Your task to perform on an android device: install app "Facebook" Image 0: 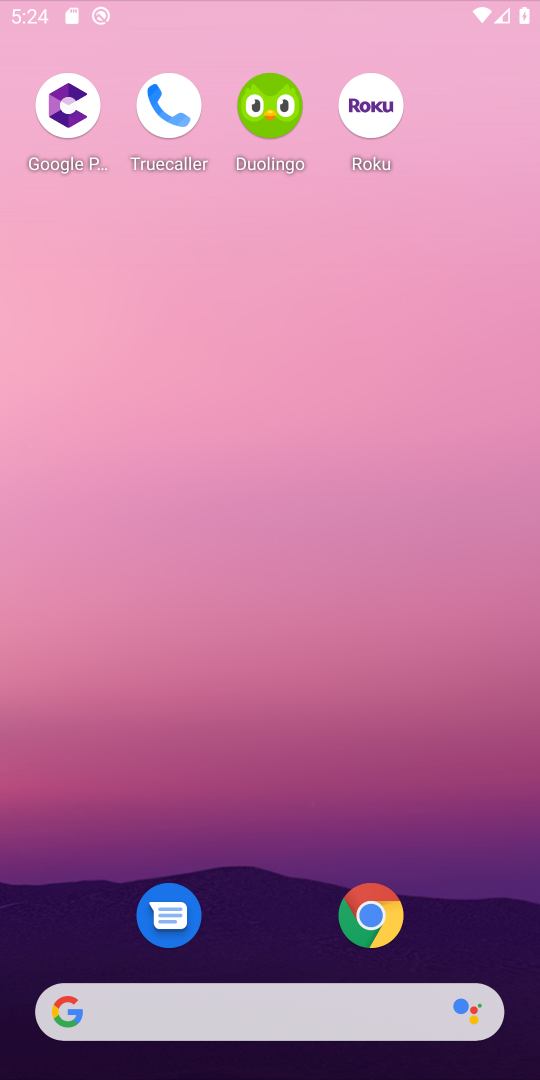
Step 0: drag from (268, 949) to (347, 66)
Your task to perform on an android device: install app "Facebook" Image 1: 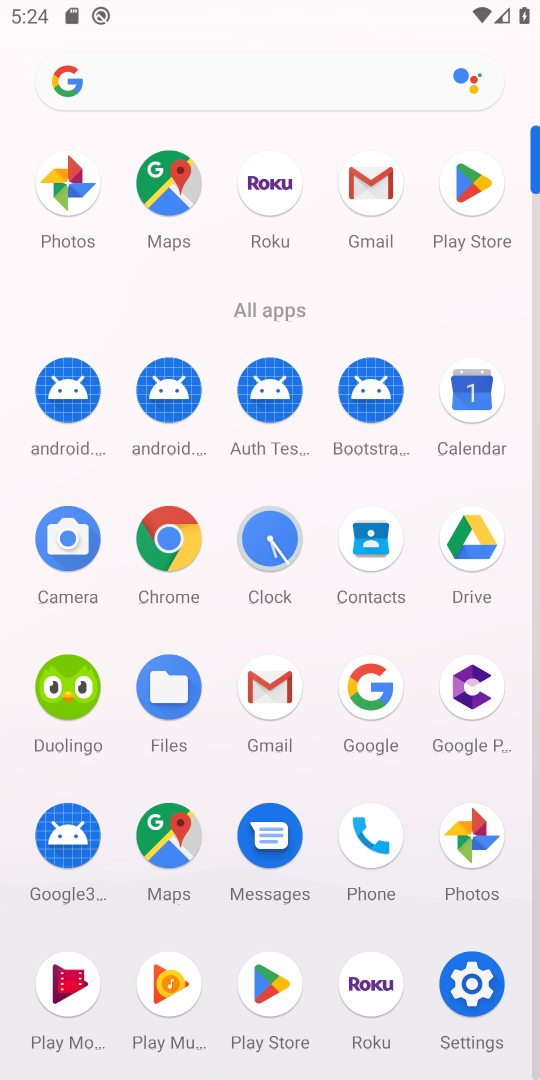
Step 1: click (451, 181)
Your task to perform on an android device: install app "Facebook" Image 2: 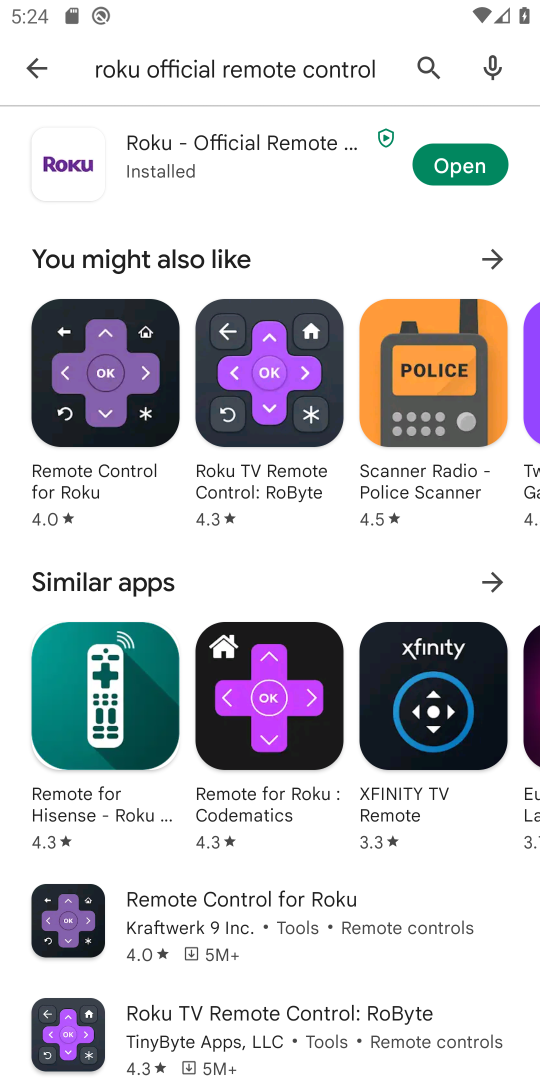
Step 2: click (425, 59)
Your task to perform on an android device: install app "Facebook" Image 3: 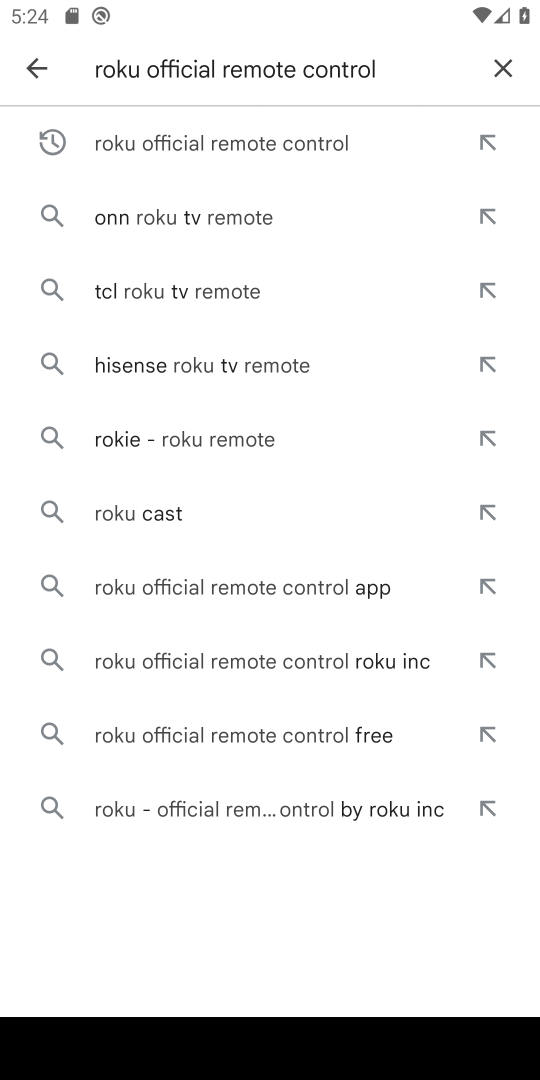
Step 3: click (502, 59)
Your task to perform on an android device: install app "Facebook" Image 4: 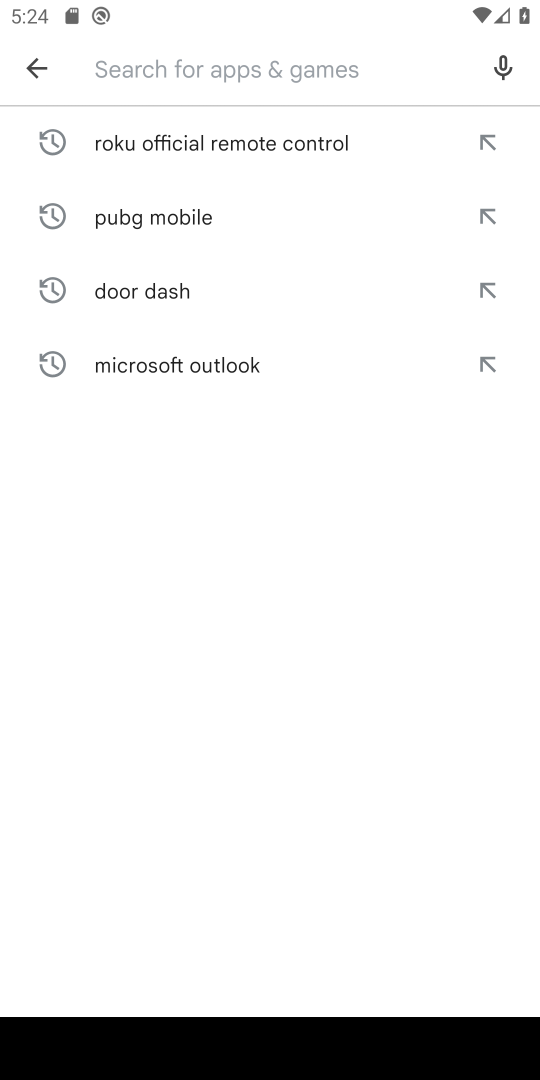
Step 4: click (207, 65)
Your task to perform on an android device: install app "Facebook" Image 5: 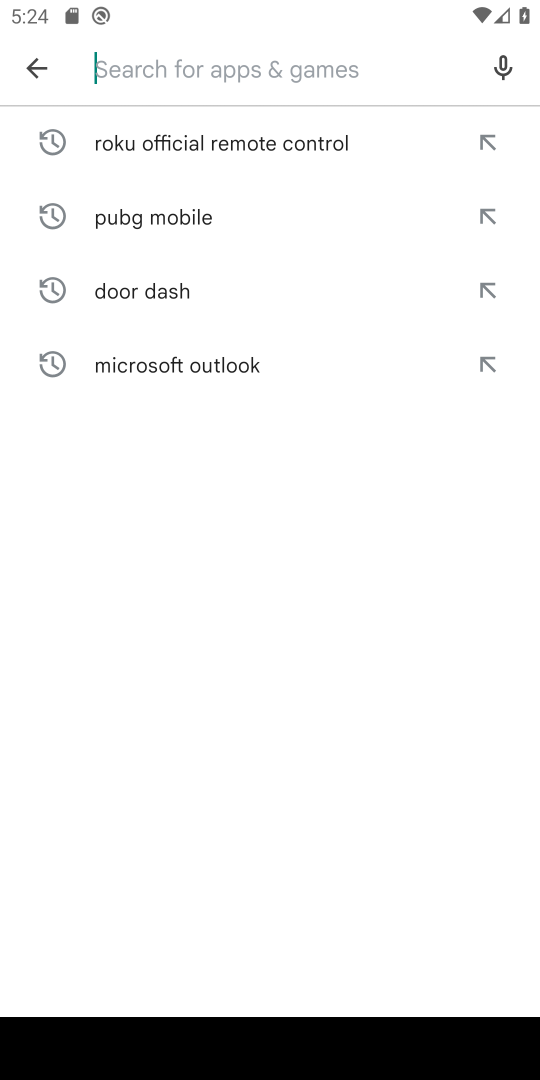
Step 5: type "facebook"
Your task to perform on an android device: install app "Facebook" Image 6: 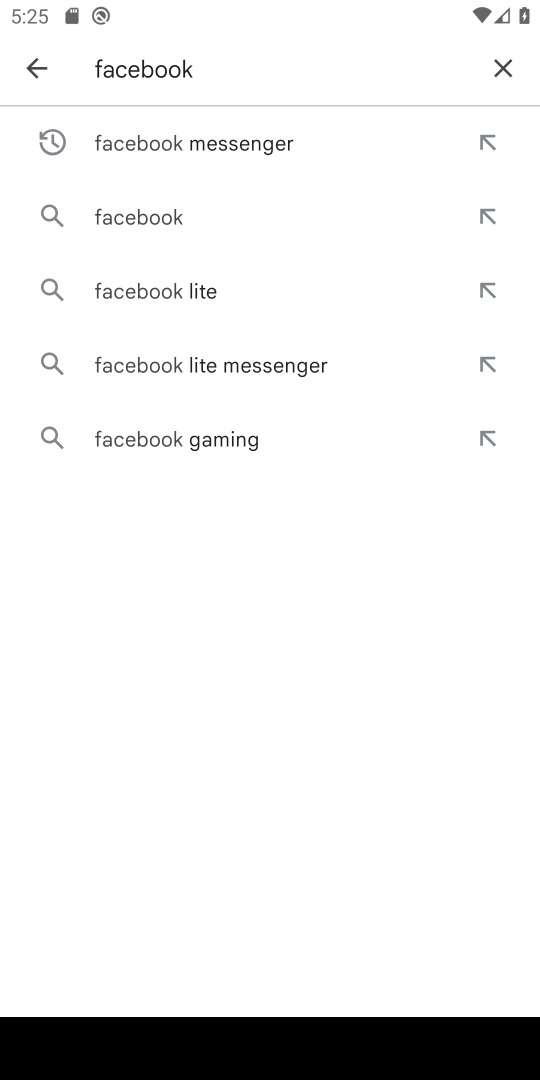
Step 6: click (131, 227)
Your task to perform on an android device: install app "Facebook" Image 7: 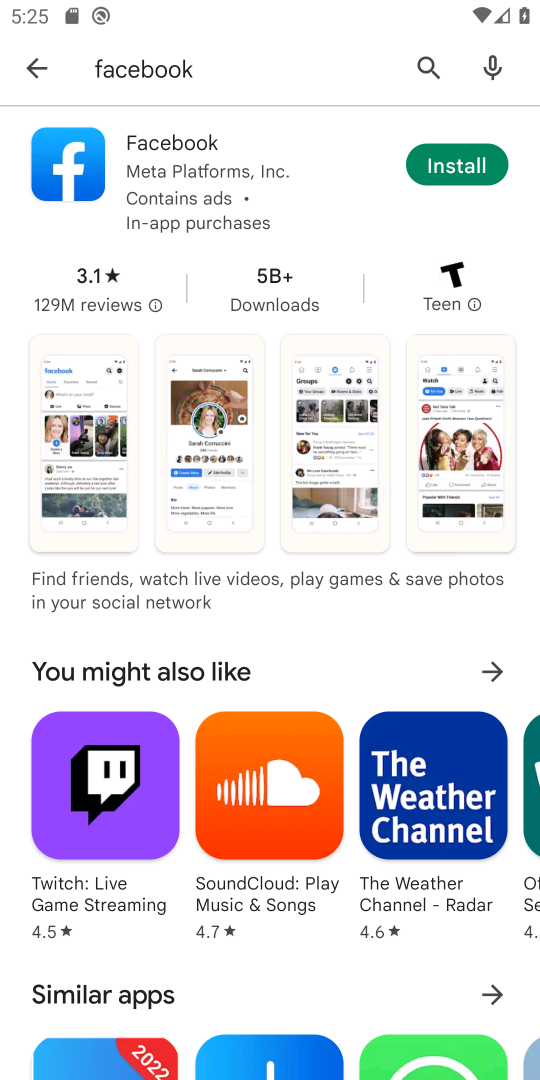
Step 7: click (442, 172)
Your task to perform on an android device: install app "Facebook" Image 8: 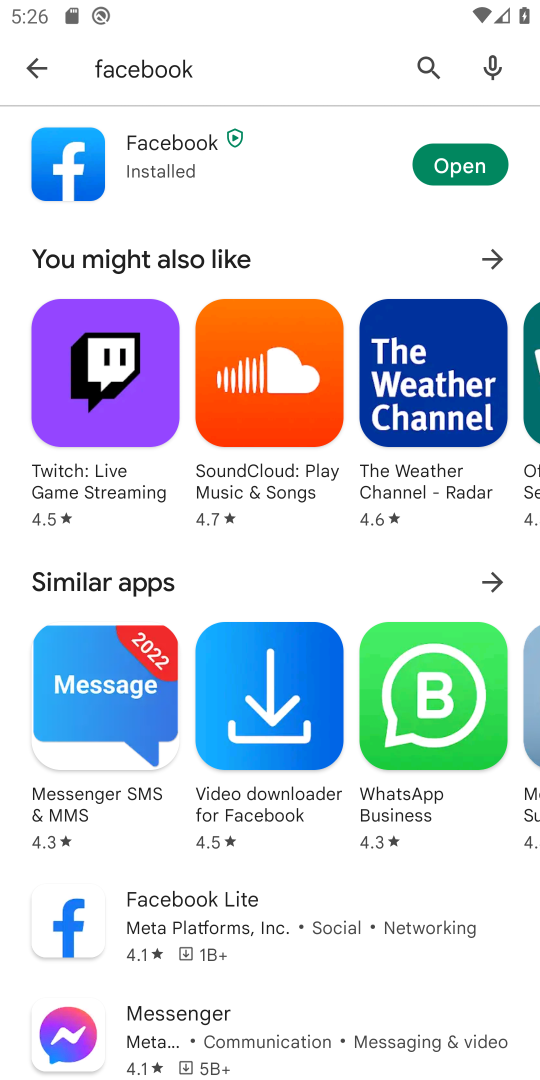
Step 8: task complete